Your task to perform on an android device: Open Chrome and go to settings Image 0: 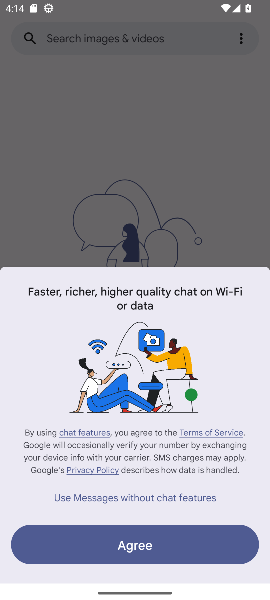
Step 0: press back button
Your task to perform on an android device: Open Chrome and go to settings Image 1: 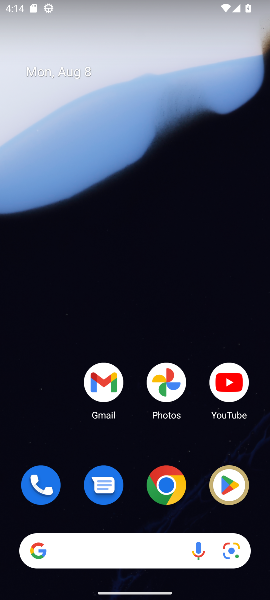
Step 1: drag from (157, 463) to (105, 18)
Your task to perform on an android device: Open Chrome and go to settings Image 2: 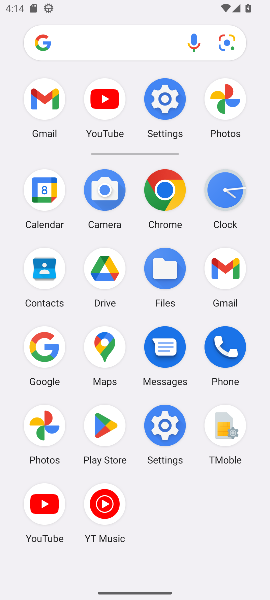
Step 2: click (167, 206)
Your task to perform on an android device: Open Chrome and go to settings Image 3: 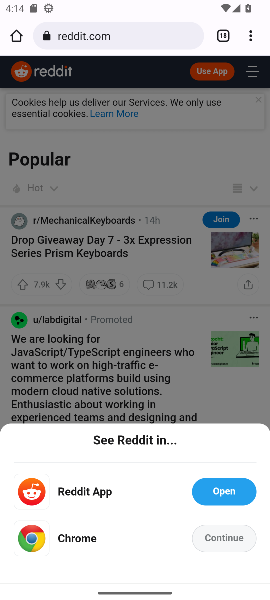
Step 3: drag from (251, 39) to (74, 87)
Your task to perform on an android device: Open Chrome and go to settings Image 4: 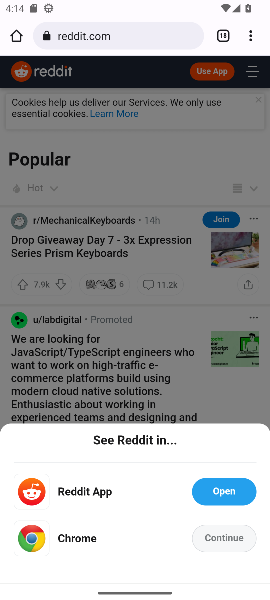
Step 4: click (246, 43)
Your task to perform on an android device: Open Chrome and go to settings Image 5: 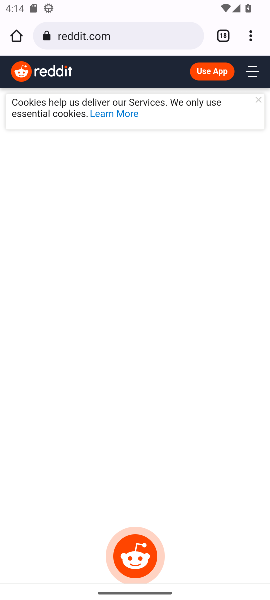
Step 5: click (247, 45)
Your task to perform on an android device: Open Chrome and go to settings Image 6: 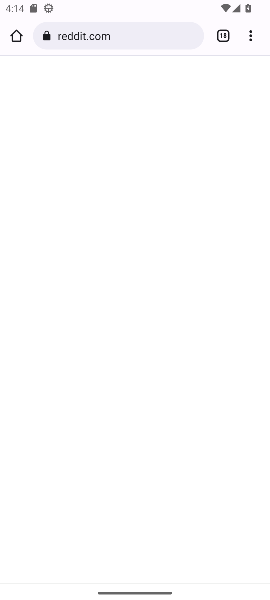
Step 6: drag from (256, 37) to (126, 472)
Your task to perform on an android device: Open Chrome and go to settings Image 7: 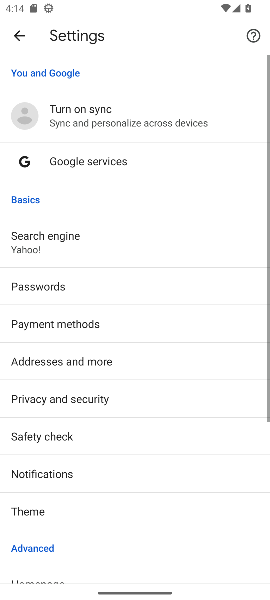
Step 7: click (137, 444)
Your task to perform on an android device: Open Chrome and go to settings Image 8: 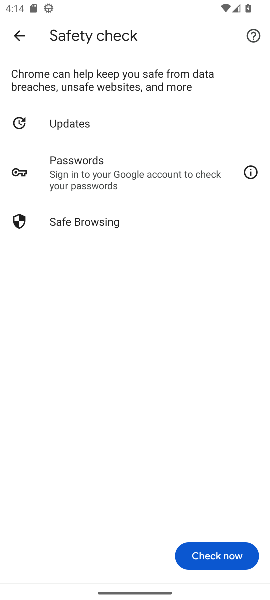
Step 8: click (11, 43)
Your task to perform on an android device: Open Chrome and go to settings Image 9: 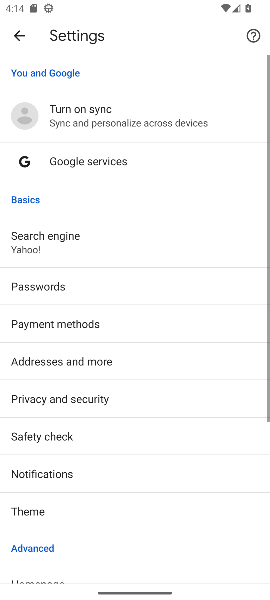
Step 9: drag from (137, 460) to (97, 153)
Your task to perform on an android device: Open Chrome and go to settings Image 10: 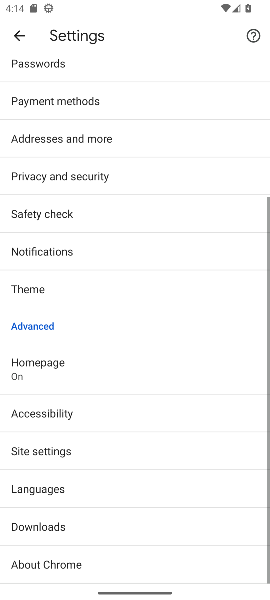
Step 10: drag from (161, 417) to (146, 128)
Your task to perform on an android device: Open Chrome and go to settings Image 11: 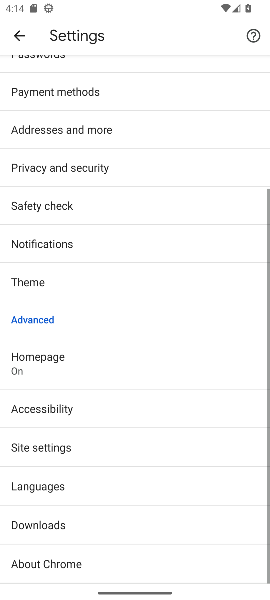
Step 11: drag from (175, 342) to (184, 114)
Your task to perform on an android device: Open Chrome and go to settings Image 12: 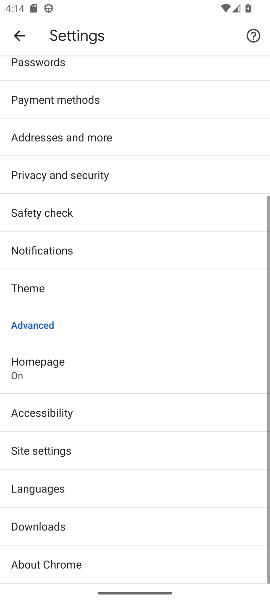
Step 12: drag from (154, 356) to (152, 125)
Your task to perform on an android device: Open Chrome and go to settings Image 13: 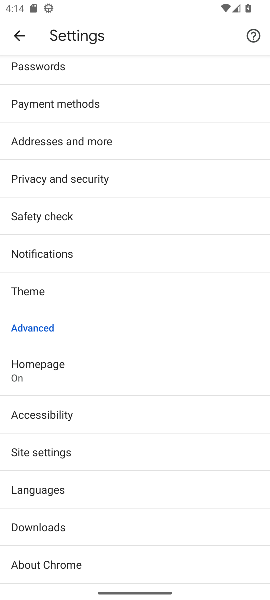
Step 13: click (40, 449)
Your task to perform on an android device: Open Chrome and go to settings Image 14: 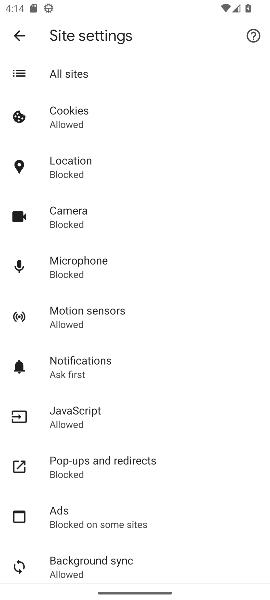
Step 14: task complete